Your task to perform on an android device: manage bookmarks in the chrome app Image 0: 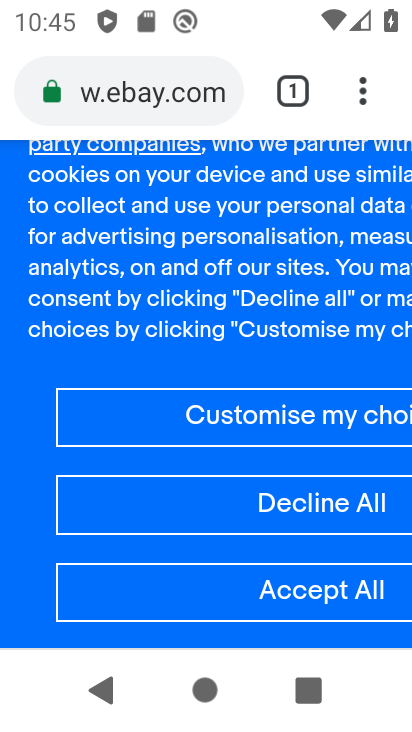
Step 0: drag from (365, 86) to (124, 349)
Your task to perform on an android device: manage bookmarks in the chrome app Image 1: 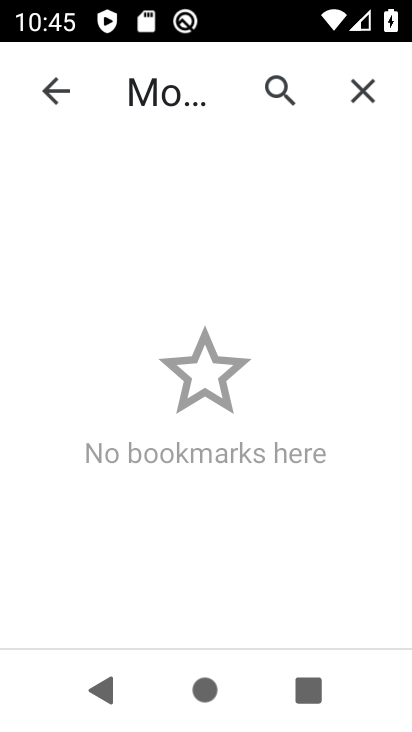
Step 1: task complete